Your task to perform on an android device: toggle data saver in the chrome app Image 0: 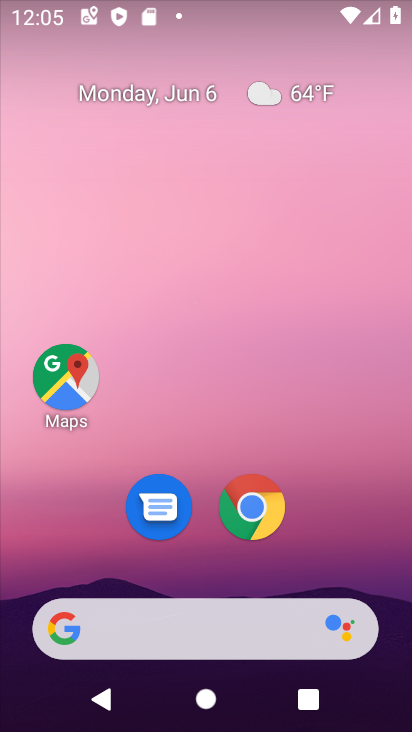
Step 0: click (246, 501)
Your task to perform on an android device: toggle data saver in the chrome app Image 1: 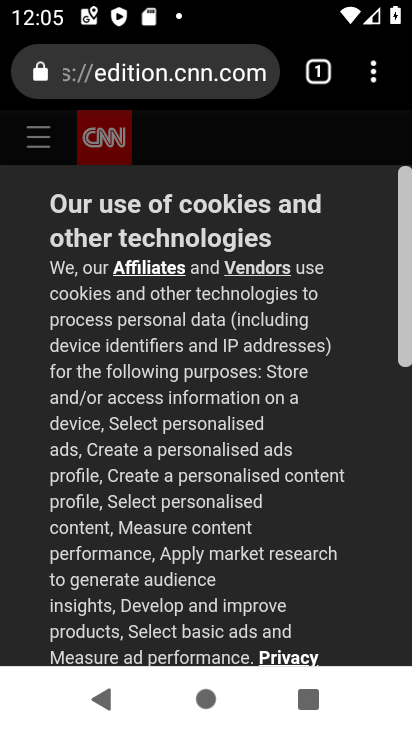
Step 1: drag from (361, 69) to (154, 505)
Your task to perform on an android device: toggle data saver in the chrome app Image 2: 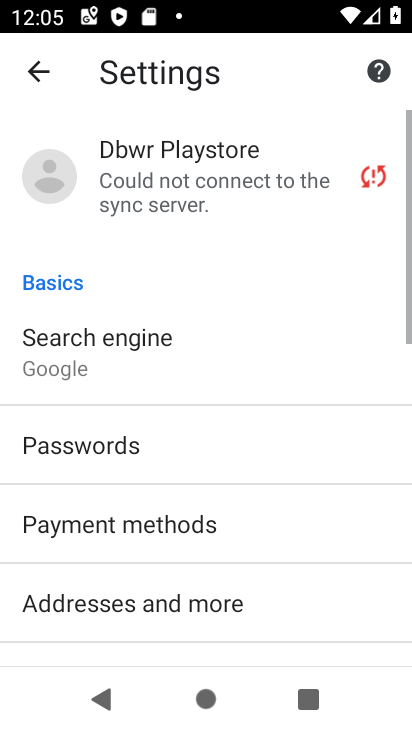
Step 2: drag from (156, 505) to (236, 12)
Your task to perform on an android device: toggle data saver in the chrome app Image 3: 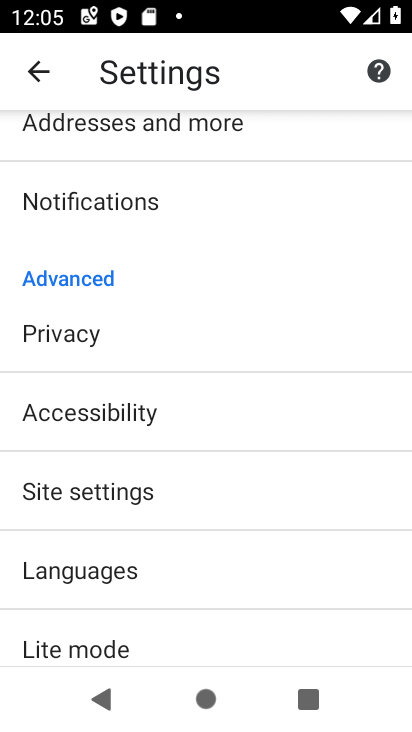
Step 3: drag from (194, 529) to (273, 196)
Your task to perform on an android device: toggle data saver in the chrome app Image 4: 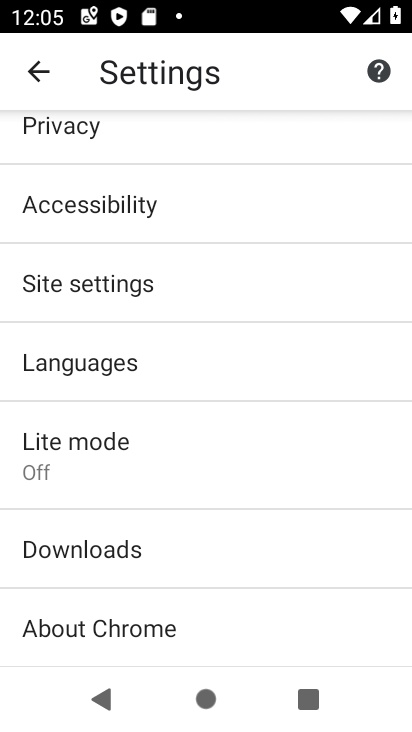
Step 4: click (141, 462)
Your task to perform on an android device: toggle data saver in the chrome app Image 5: 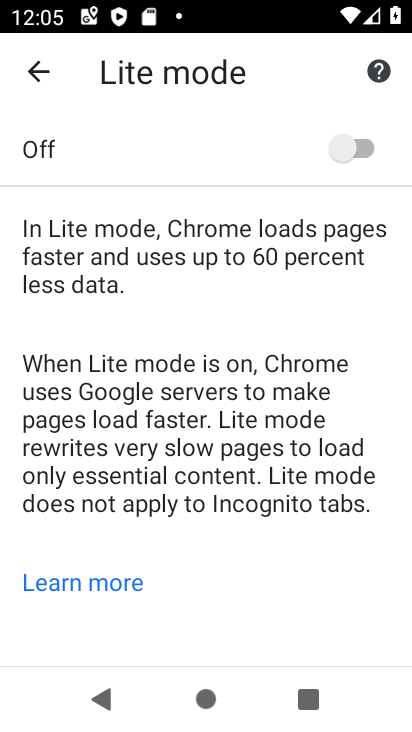
Step 5: click (355, 153)
Your task to perform on an android device: toggle data saver in the chrome app Image 6: 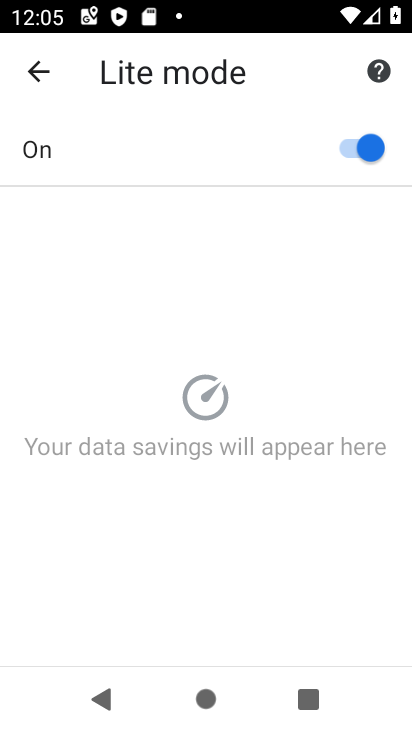
Step 6: task complete